Your task to perform on an android device: open the mobile data screen to see how much data has been used Image 0: 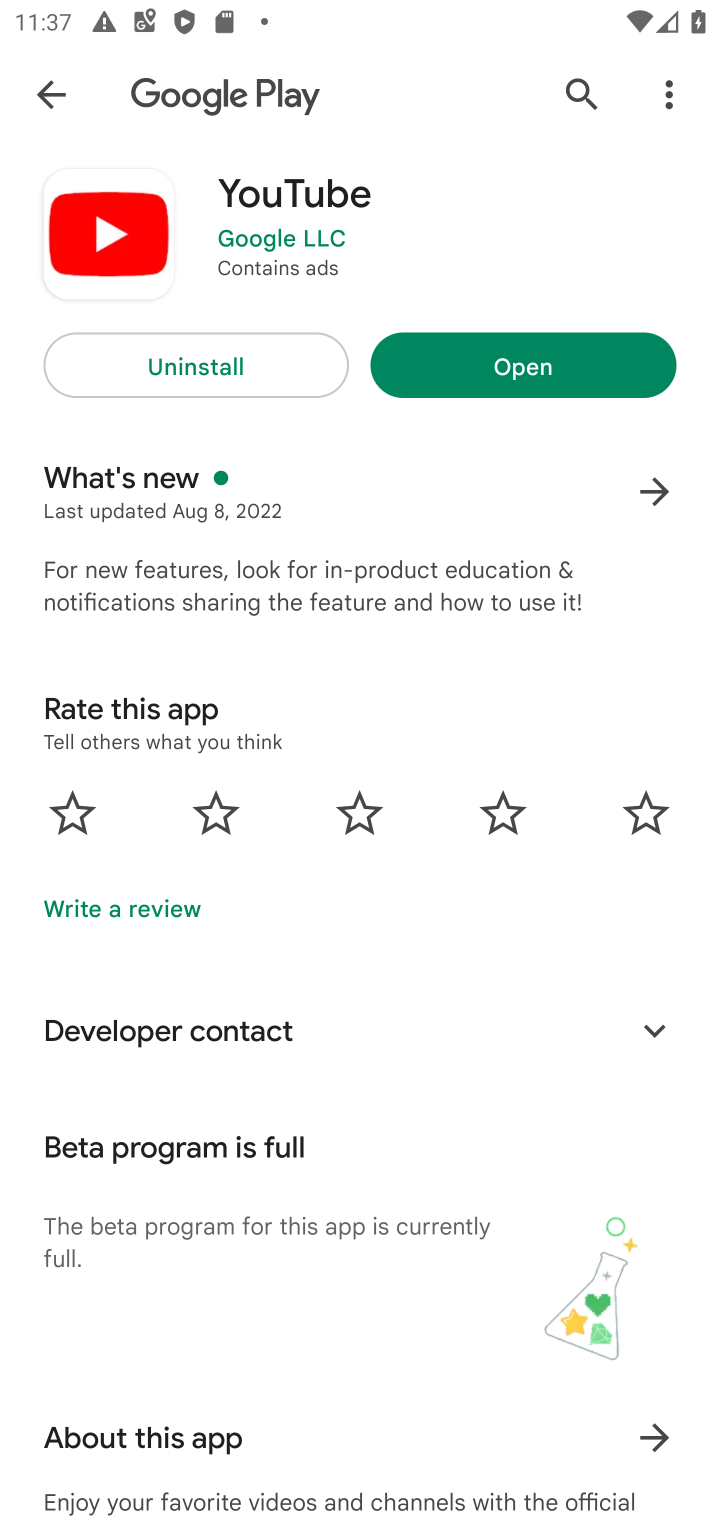
Step 0: press home button
Your task to perform on an android device: open the mobile data screen to see how much data has been used Image 1: 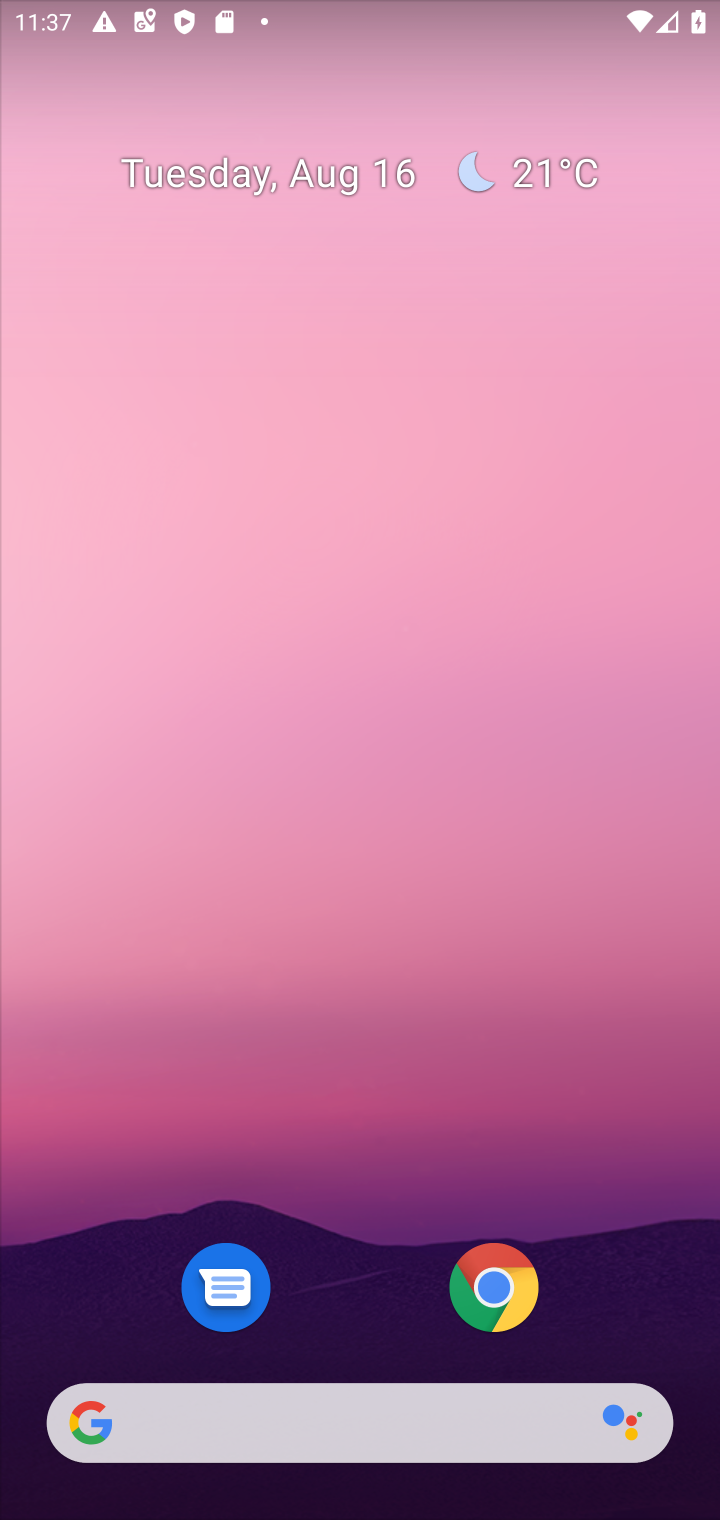
Step 1: drag from (626, 1315) to (529, 526)
Your task to perform on an android device: open the mobile data screen to see how much data has been used Image 2: 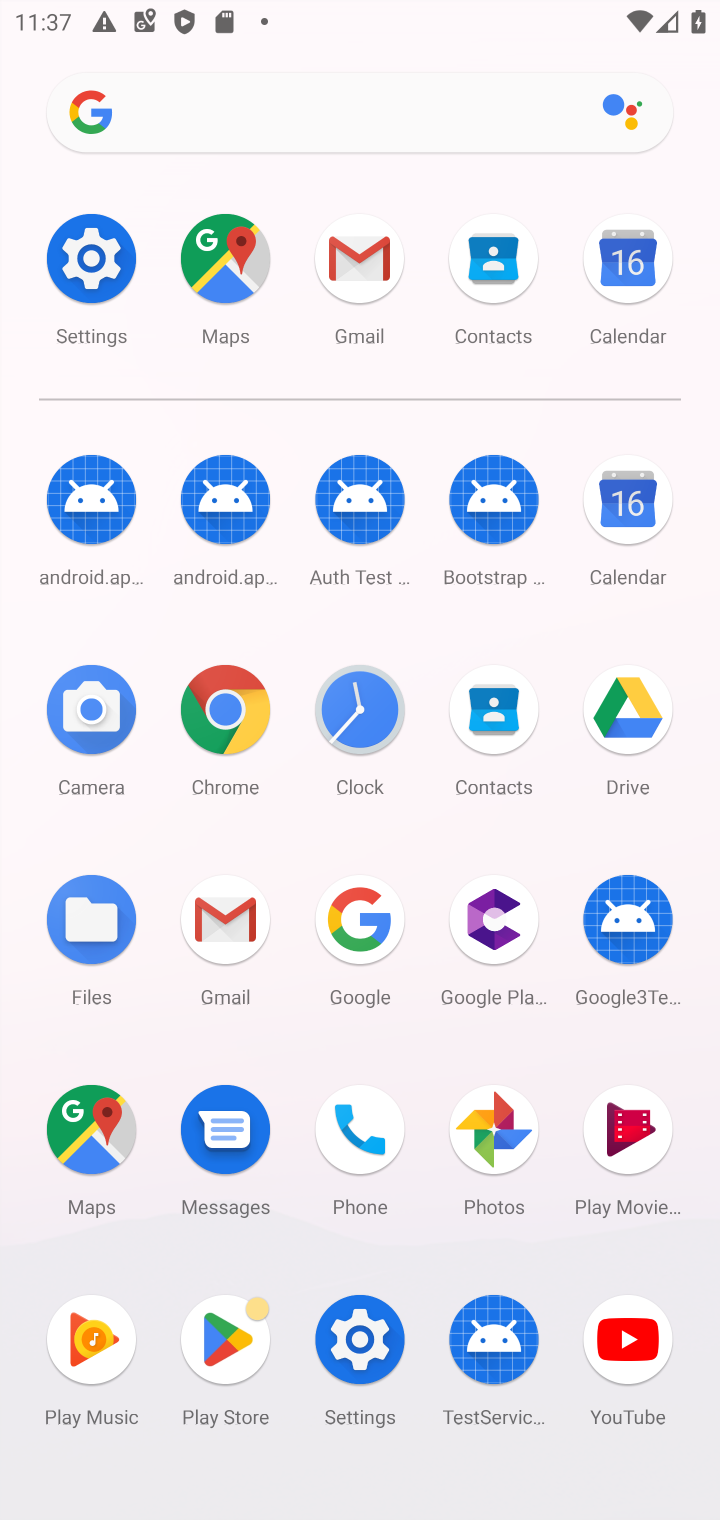
Step 2: click (362, 1338)
Your task to perform on an android device: open the mobile data screen to see how much data has been used Image 3: 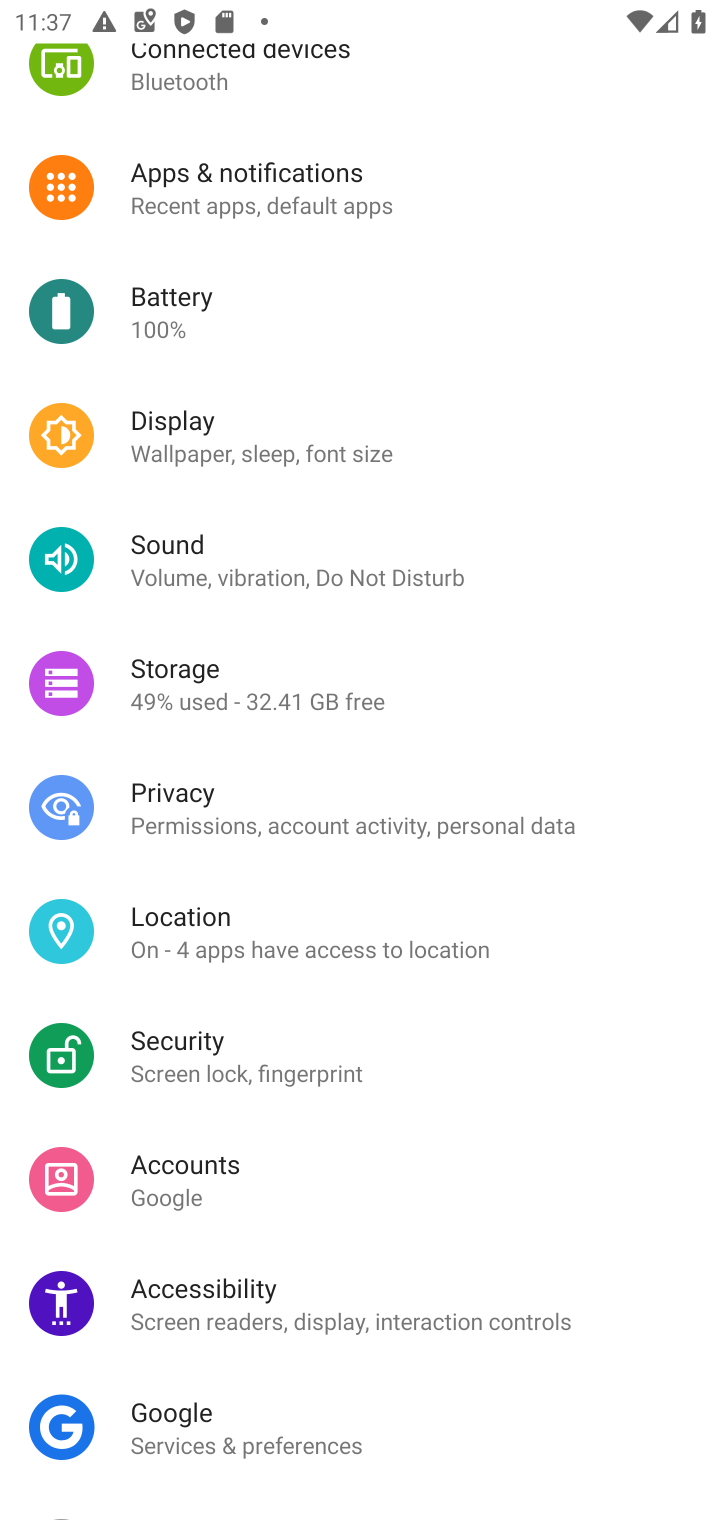
Step 3: drag from (575, 454) to (574, 967)
Your task to perform on an android device: open the mobile data screen to see how much data has been used Image 4: 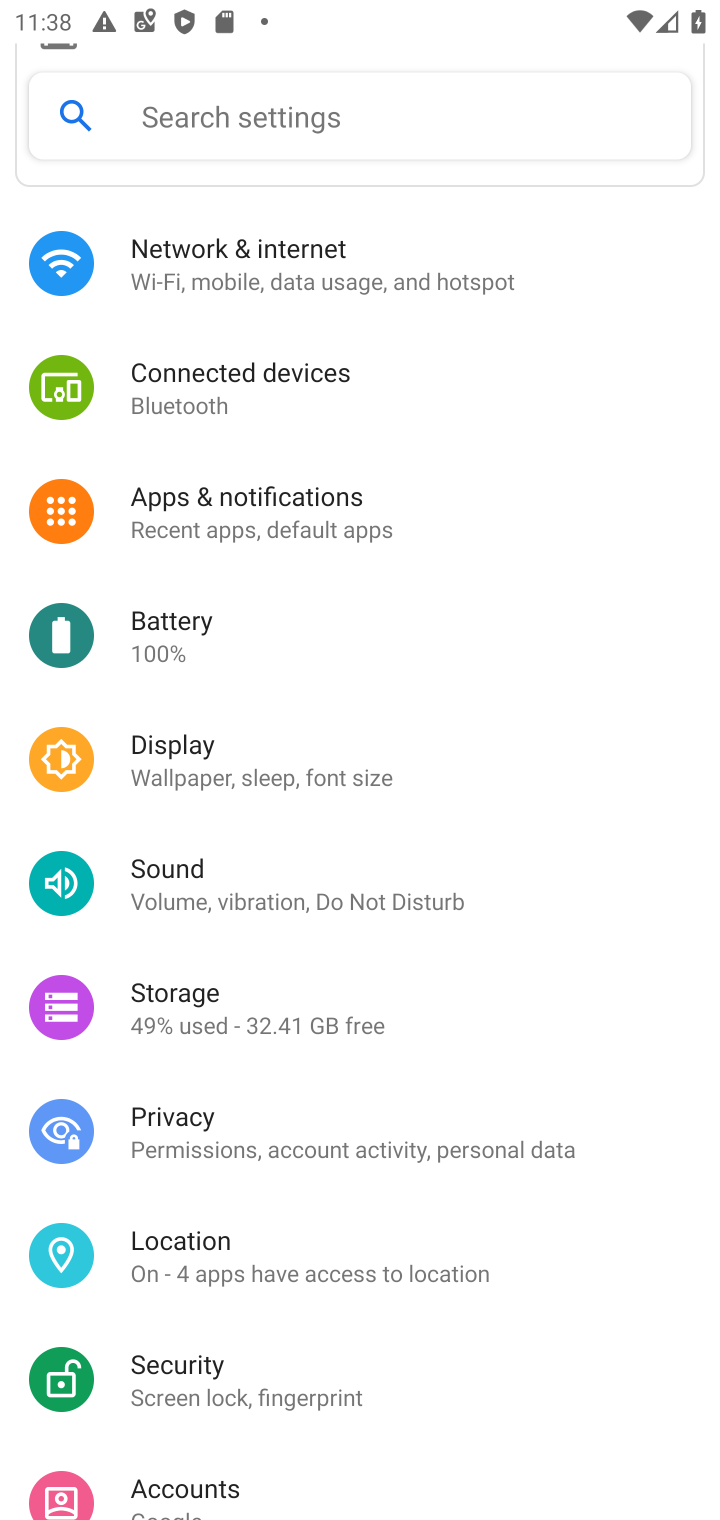
Step 4: click (228, 232)
Your task to perform on an android device: open the mobile data screen to see how much data has been used Image 5: 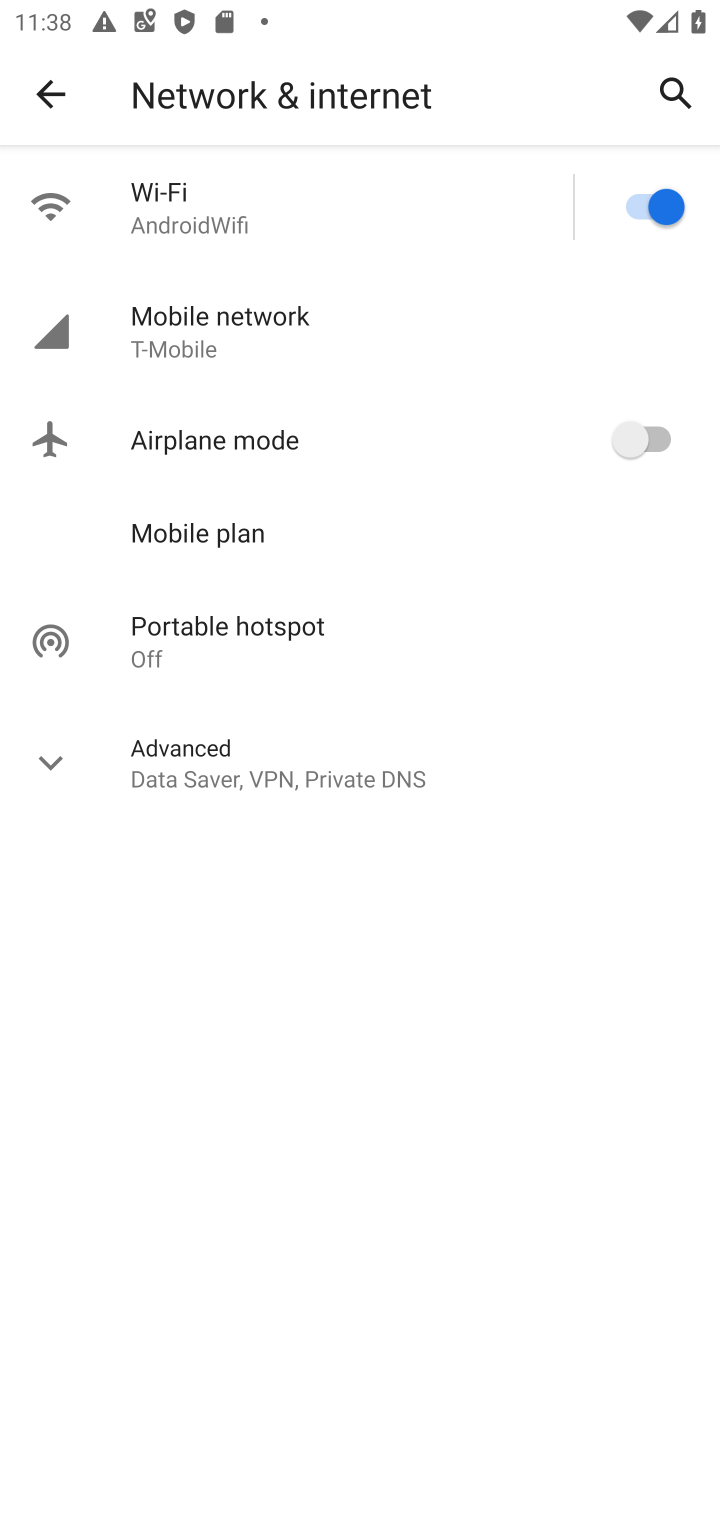
Step 5: click (226, 318)
Your task to perform on an android device: open the mobile data screen to see how much data has been used Image 6: 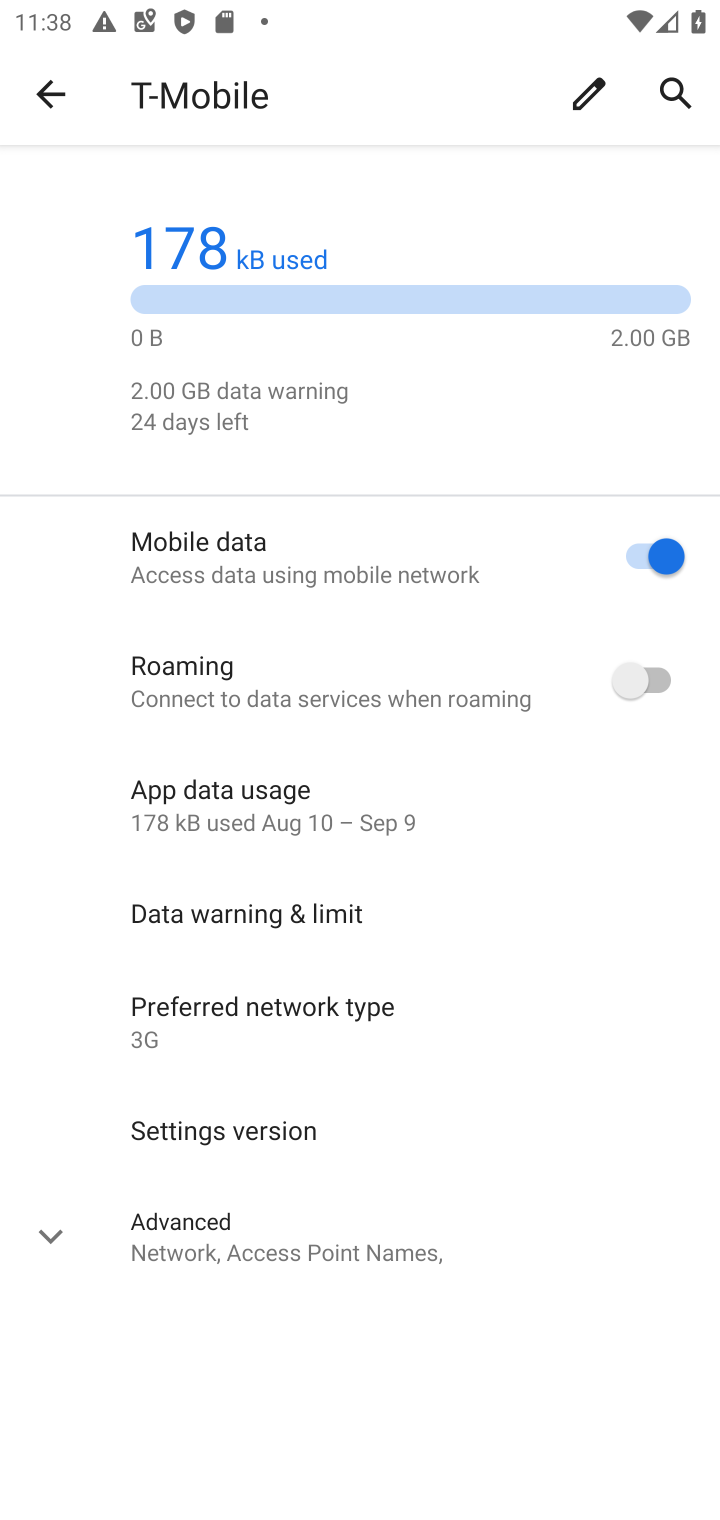
Step 6: task complete